Your task to perform on an android device: Search for "bose soundlink mini" on amazon.com, select the first entry, and add it to the cart. Image 0: 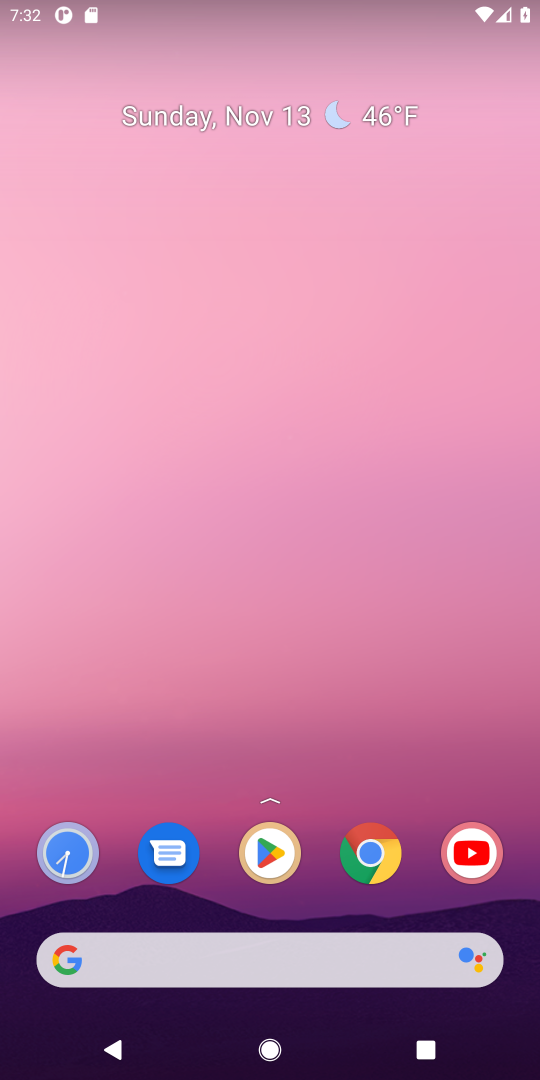
Step 0: press home button
Your task to perform on an android device: Search for "bose soundlink mini" on amazon.com, select the first entry, and add it to the cart. Image 1: 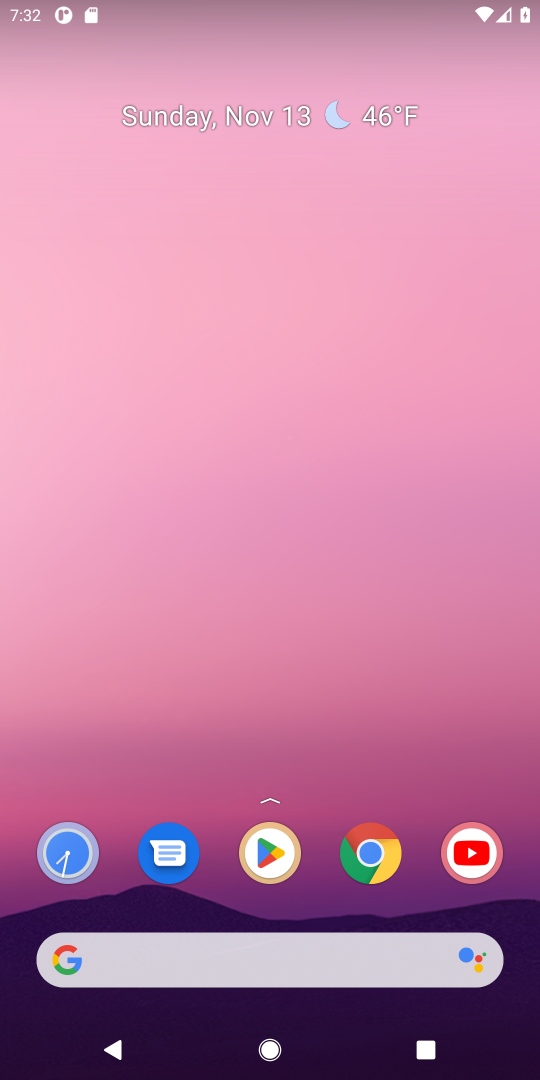
Step 1: click (108, 956)
Your task to perform on an android device: Search for "bose soundlink mini" on amazon.com, select the first entry, and add it to the cart. Image 2: 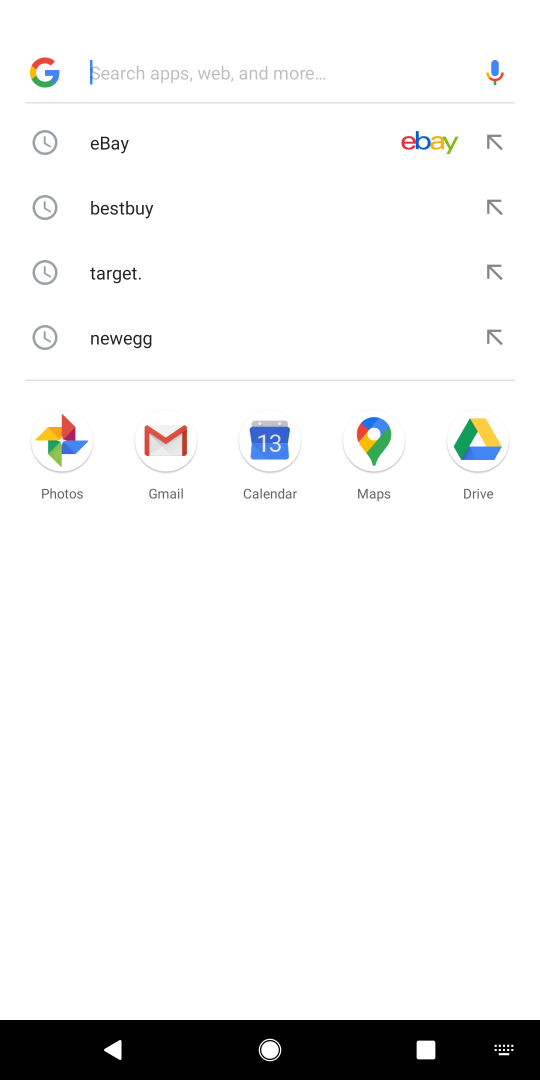
Step 2: type " amazon.com"
Your task to perform on an android device: Search for "bose soundlink mini" on amazon.com, select the first entry, and add it to the cart. Image 3: 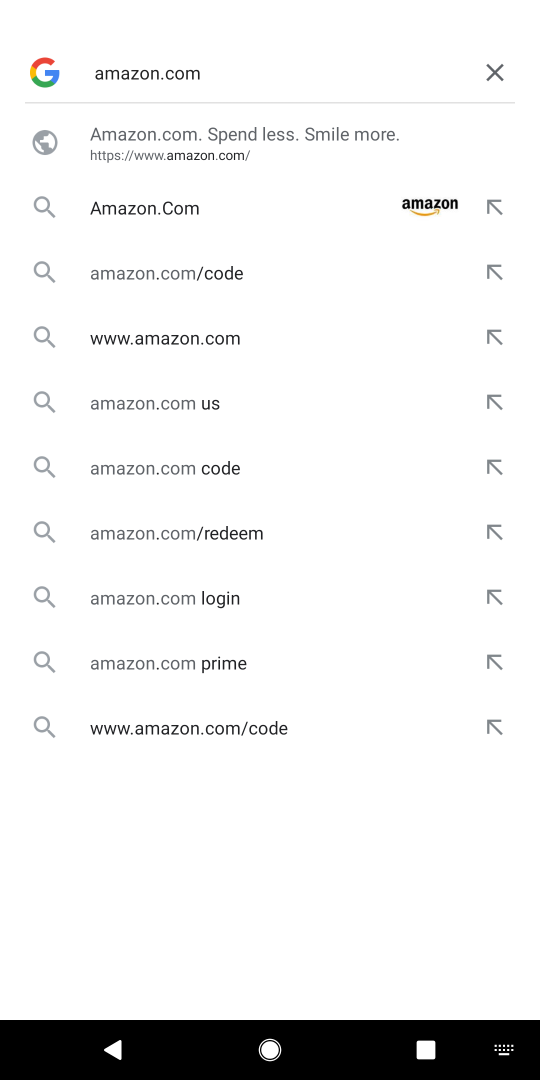
Step 3: press enter
Your task to perform on an android device: Search for "bose soundlink mini" on amazon.com, select the first entry, and add it to the cart. Image 4: 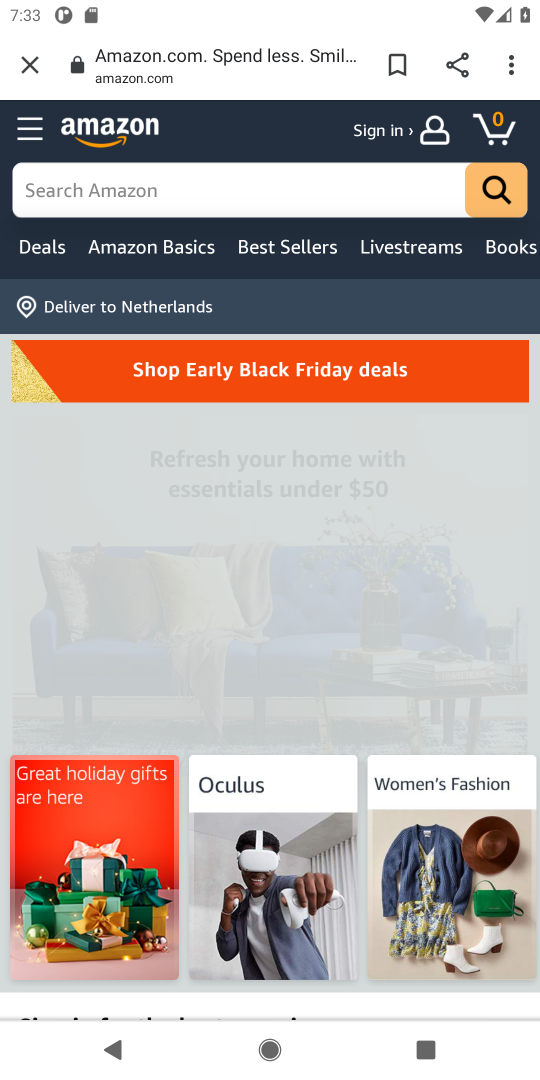
Step 4: click (49, 191)
Your task to perform on an android device: Search for "bose soundlink mini" on amazon.com, select the first entry, and add it to the cart. Image 5: 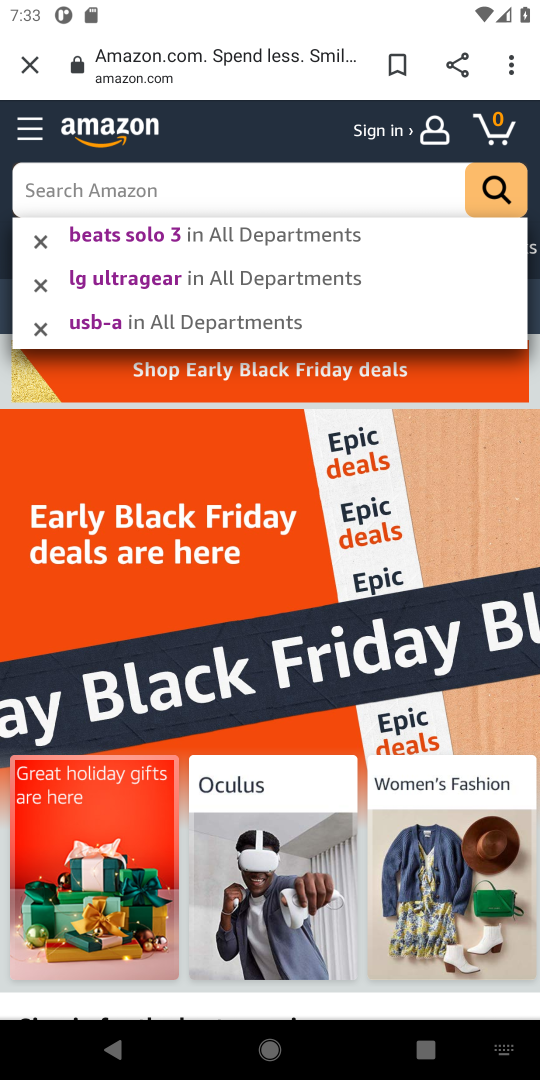
Step 5: type "bose soundlink mini"
Your task to perform on an android device: Search for "bose soundlink mini" on amazon.com, select the first entry, and add it to the cart. Image 6: 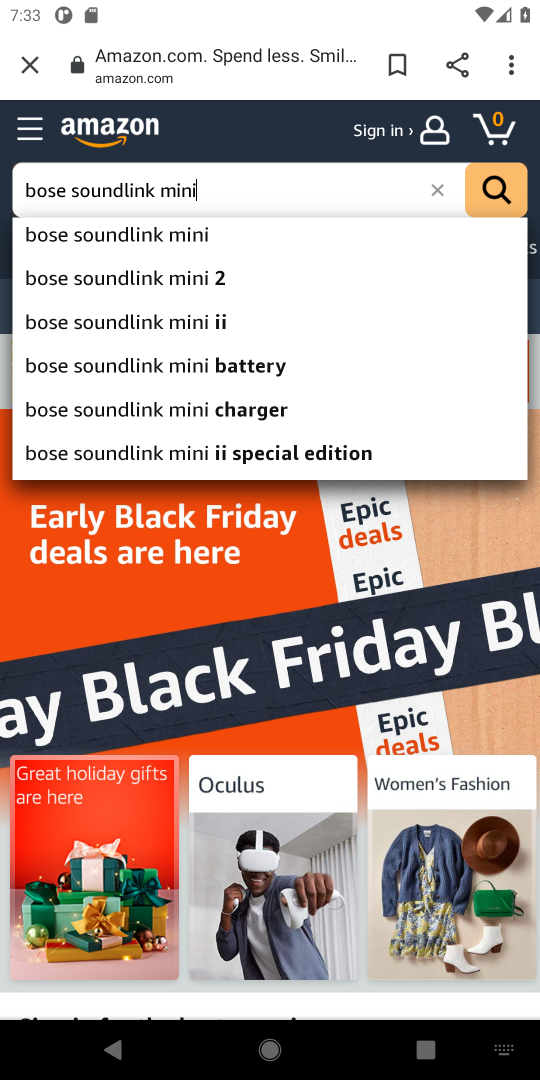
Step 6: click (498, 185)
Your task to perform on an android device: Search for "bose soundlink mini" on amazon.com, select the first entry, and add it to the cart. Image 7: 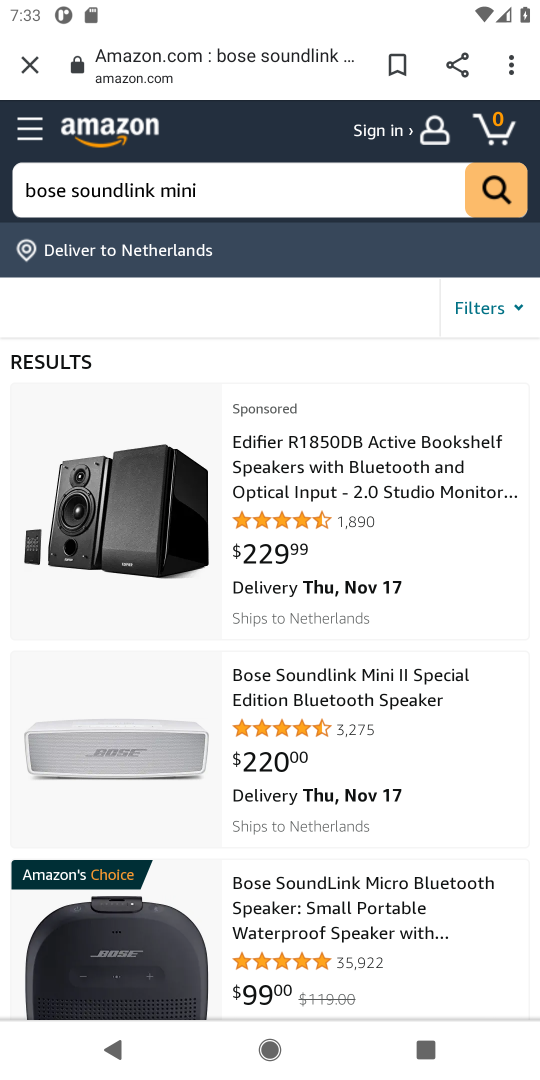
Step 7: drag from (367, 895) to (388, 611)
Your task to perform on an android device: Search for "bose soundlink mini" on amazon.com, select the first entry, and add it to the cart. Image 8: 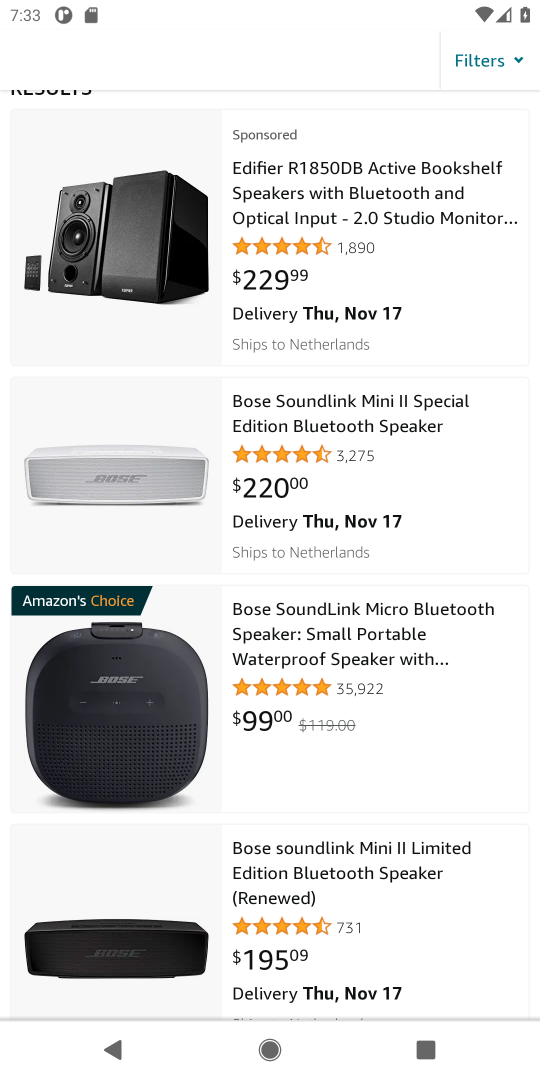
Step 8: click (313, 405)
Your task to perform on an android device: Search for "bose soundlink mini" on amazon.com, select the first entry, and add it to the cart. Image 9: 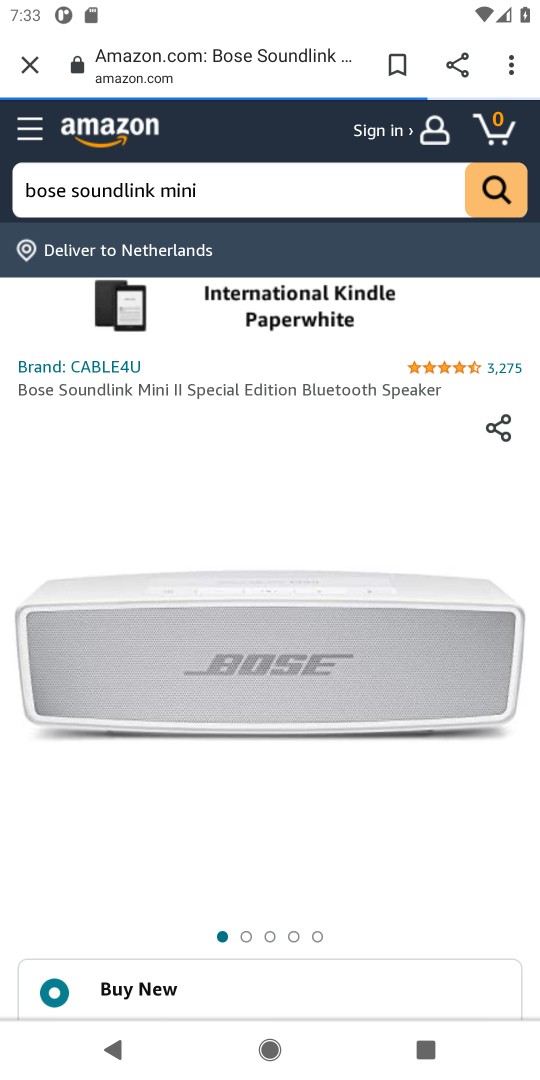
Step 9: drag from (365, 839) to (383, 362)
Your task to perform on an android device: Search for "bose soundlink mini" on amazon.com, select the first entry, and add it to the cart. Image 10: 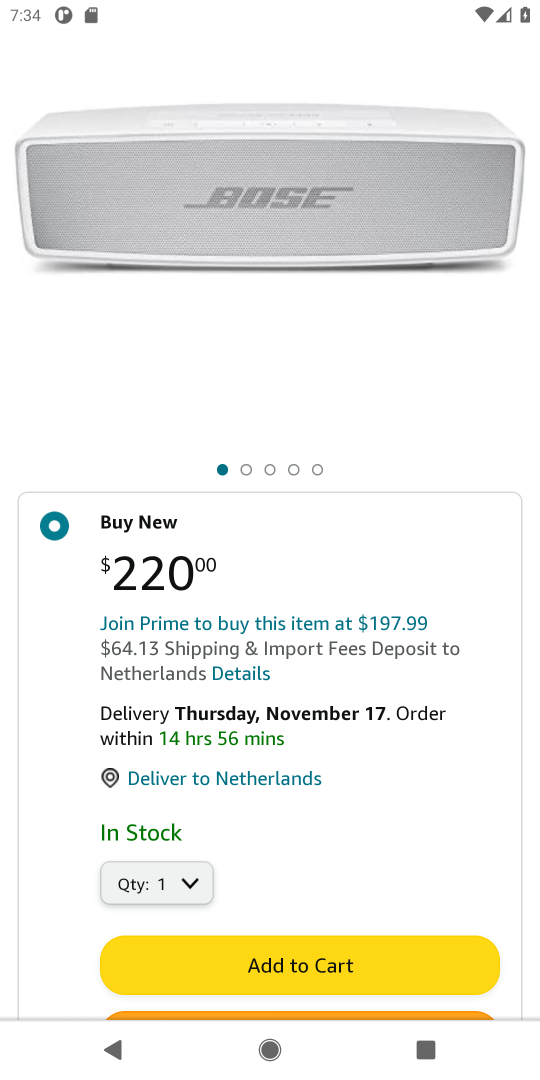
Step 10: drag from (316, 809) to (316, 283)
Your task to perform on an android device: Search for "bose soundlink mini" on amazon.com, select the first entry, and add it to the cart. Image 11: 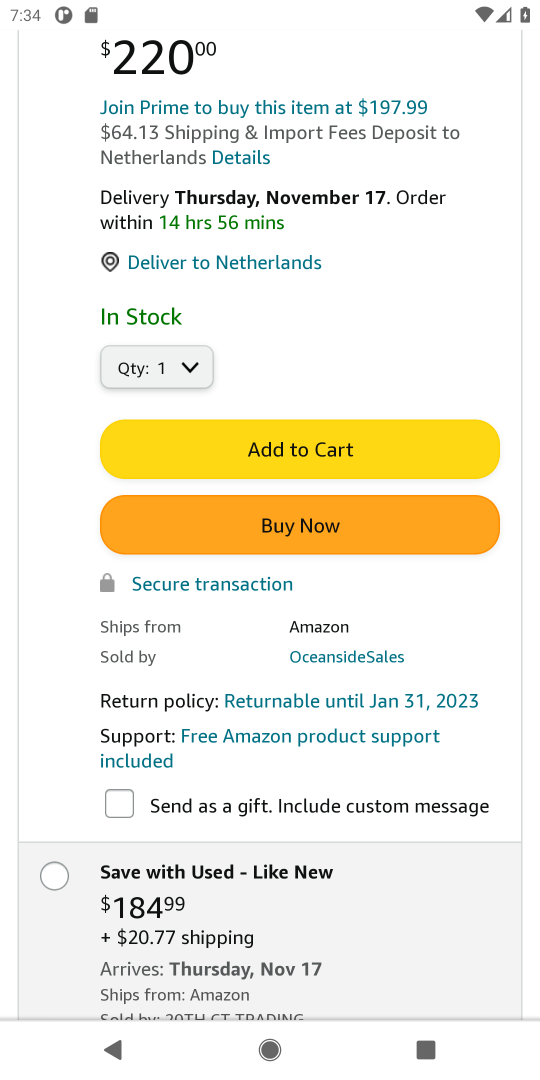
Step 11: click (283, 451)
Your task to perform on an android device: Search for "bose soundlink mini" on amazon.com, select the first entry, and add it to the cart. Image 12: 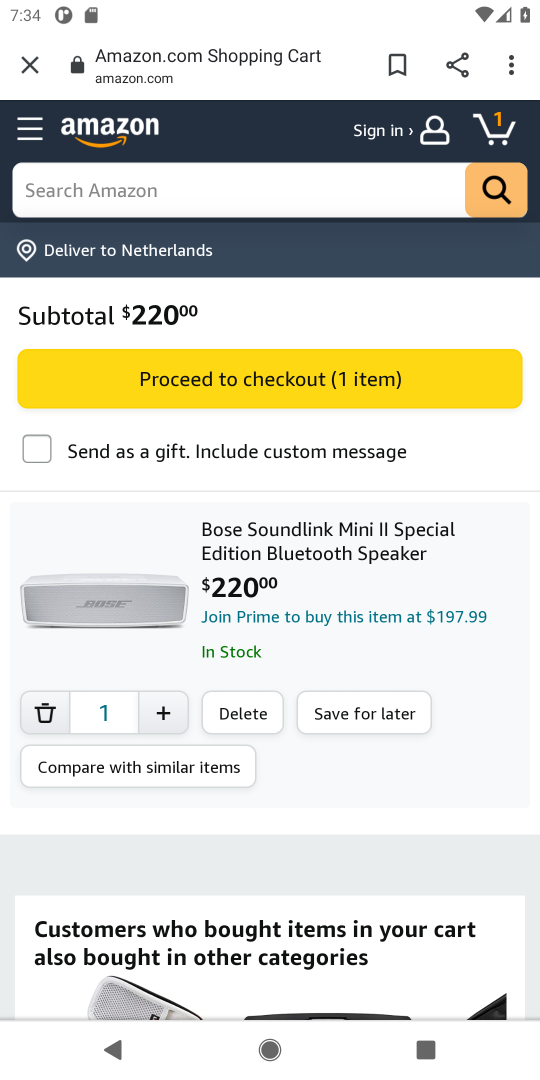
Step 12: task complete